Your task to perform on an android device: make emails show in primary in the gmail app Image 0: 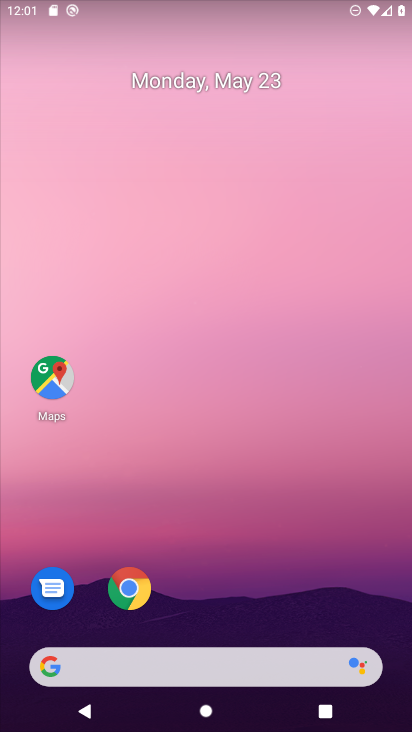
Step 0: drag from (203, 654) to (254, 308)
Your task to perform on an android device: make emails show in primary in the gmail app Image 1: 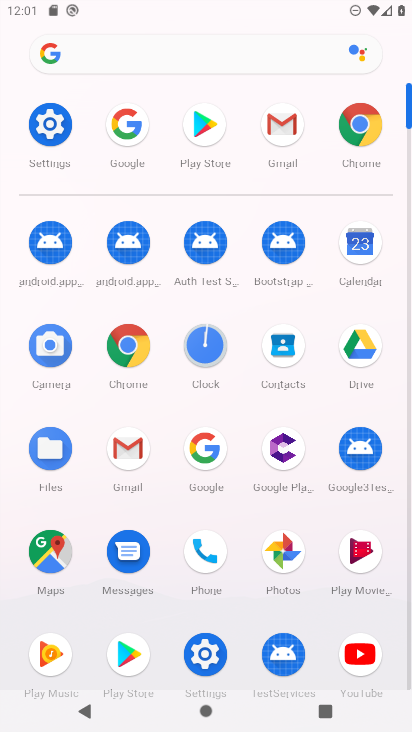
Step 1: click (285, 120)
Your task to perform on an android device: make emails show in primary in the gmail app Image 2: 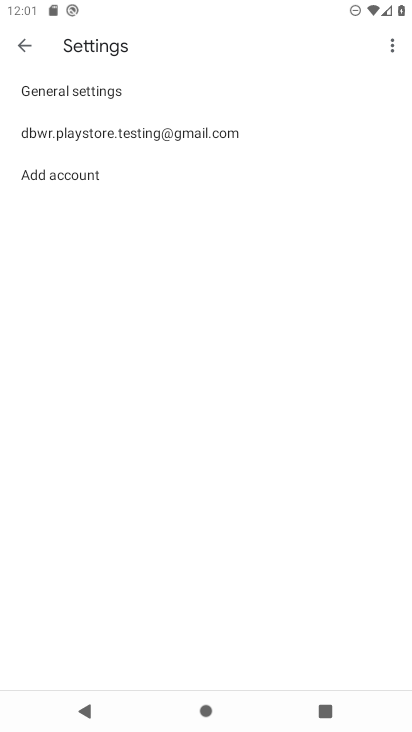
Step 2: click (167, 136)
Your task to perform on an android device: make emails show in primary in the gmail app Image 3: 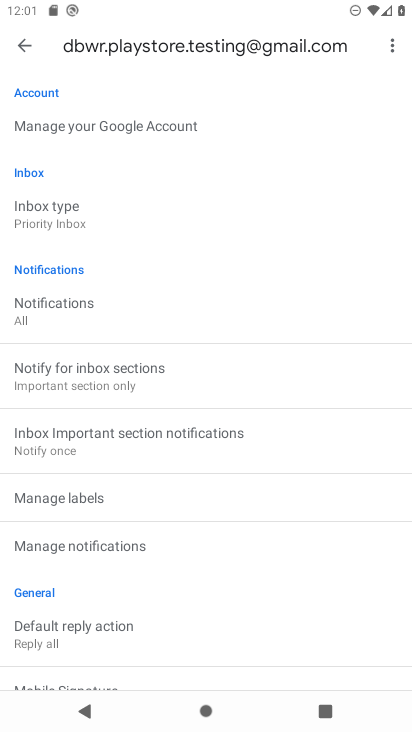
Step 3: click (76, 218)
Your task to perform on an android device: make emails show in primary in the gmail app Image 4: 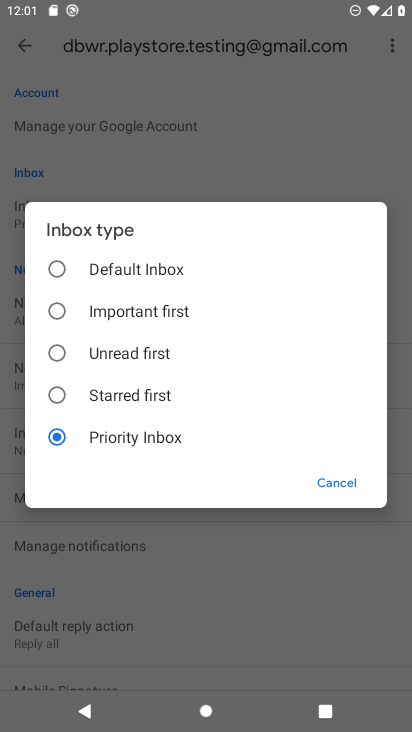
Step 4: click (111, 276)
Your task to perform on an android device: make emails show in primary in the gmail app Image 5: 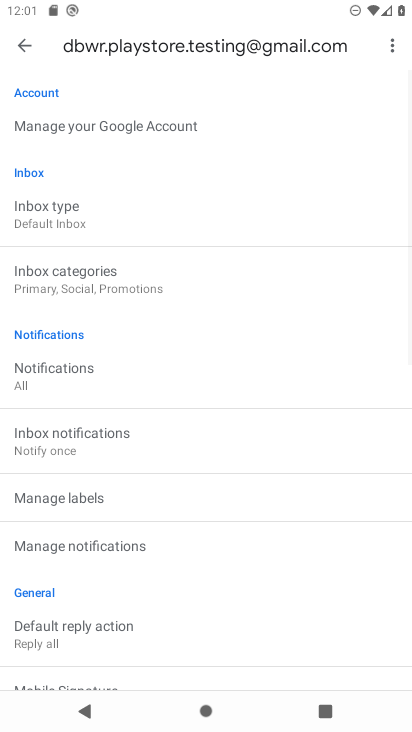
Step 5: click (95, 278)
Your task to perform on an android device: make emails show in primary in the gmail app Image 6: 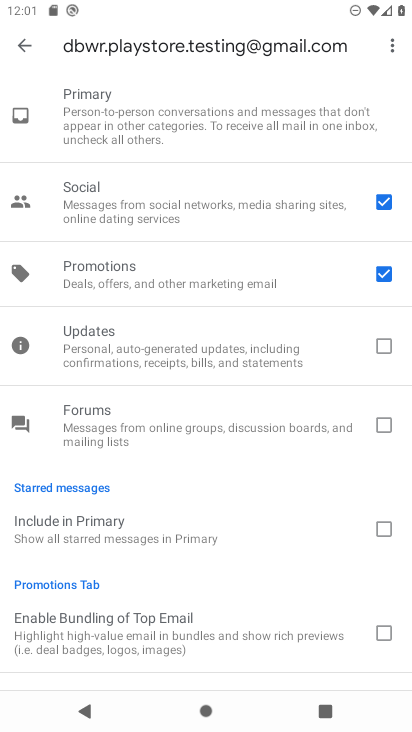
Step 6: click (386, 270)
Your task to perform on an android device: make emails show in primary in the gmail app Image 7: 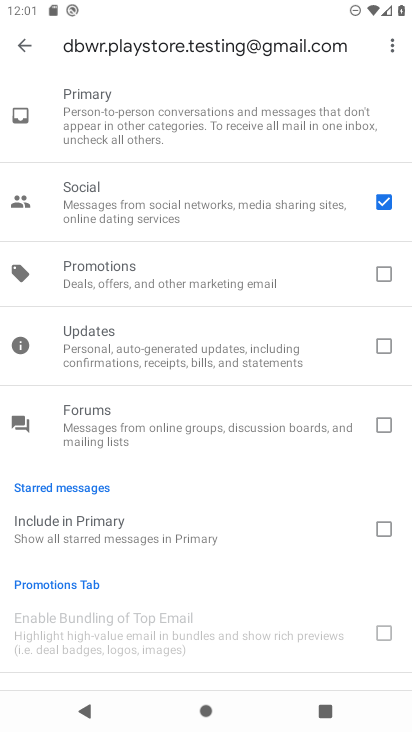
Step 7: click (390, 197)
Your task to perform on an android device: make emails show in primary in the gmail app Image 8: 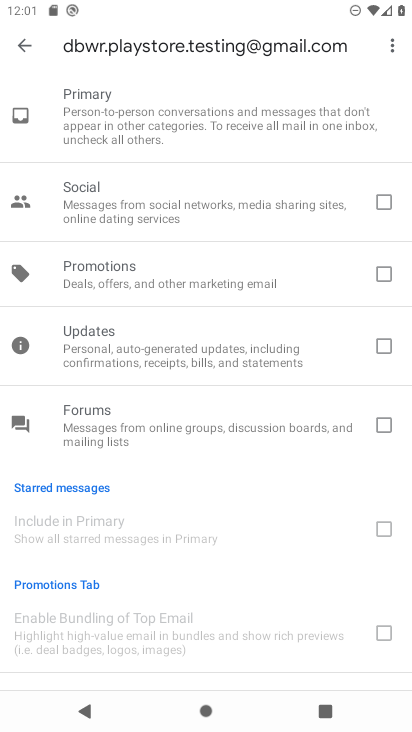
Step 8: click (22, 50)
Your task to perform on an android device: make emails show in primary in the gmail app Image 9: 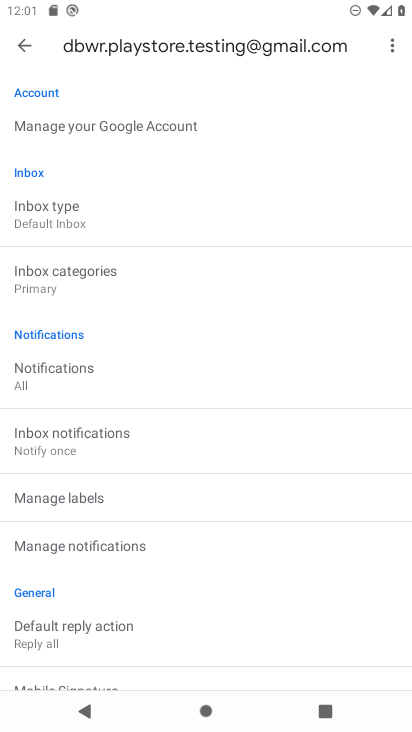
Step 9: task complete